Your task to perform on an android device: check data usage Image 0: 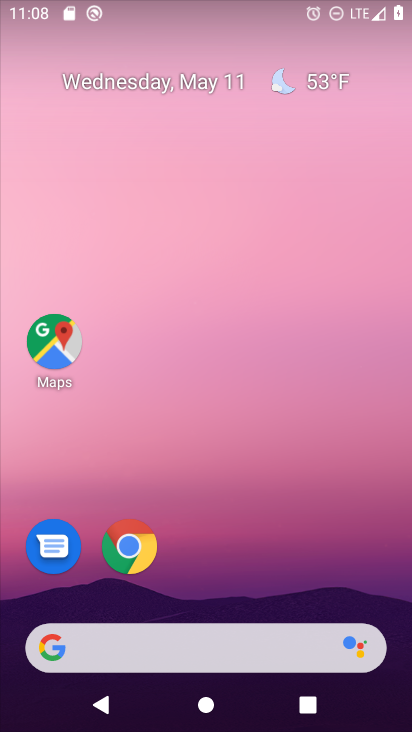
Step 0: drag from (400, 614) to (255, 51)
Your task to perform on an android device: check data usage Image 1: 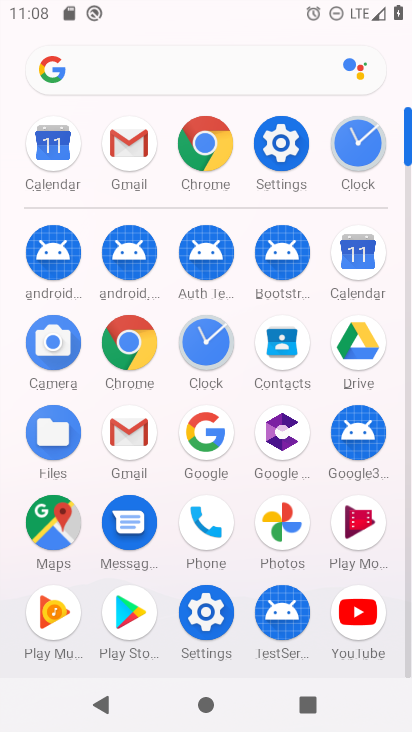
Step 1: click (286, 143)
Your task to perform on an android device: check data usage Image 2: 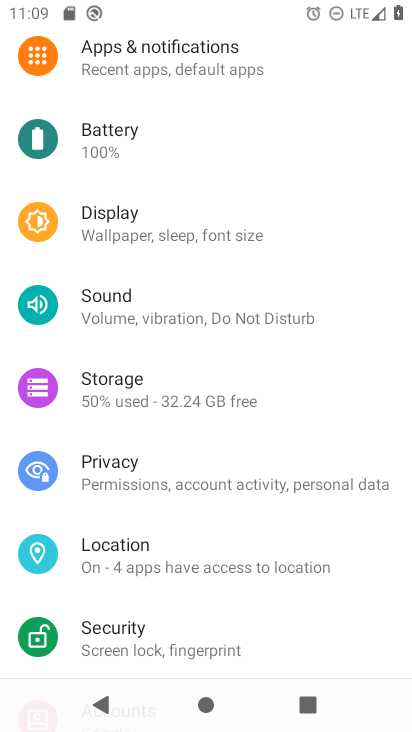
Step 2: drag from (222, 94) to (220, 638)
Your task to perform on an android device: check data usage Image 3: 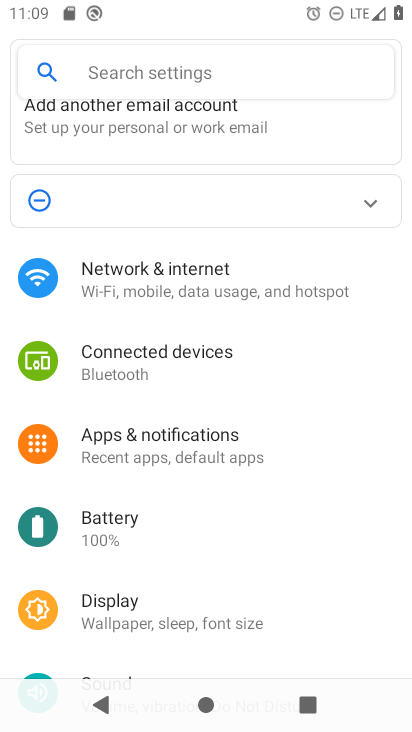
Step 3: click (155, 290)
Your task to perform on an android device: check data usage Image 4: 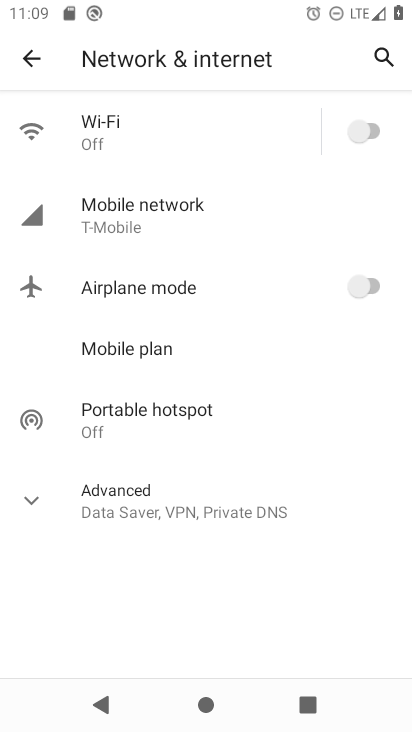
Step 4: click (161, 210)
Your task to perform on an android device: check data usage Image 5: 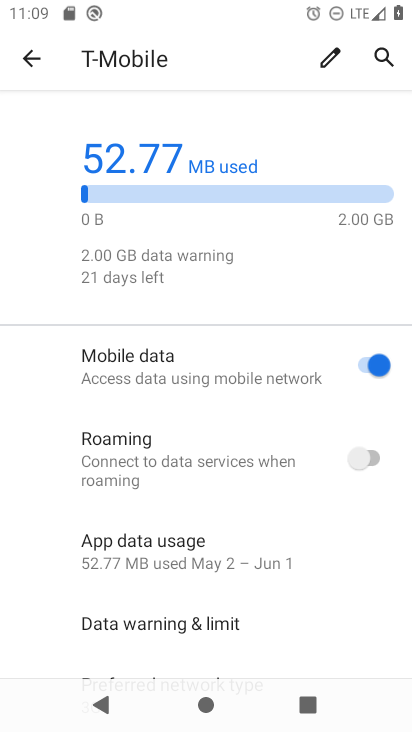
Step 5: click (191, 559)
Your task to perform on an android device: check data usage Image 6: 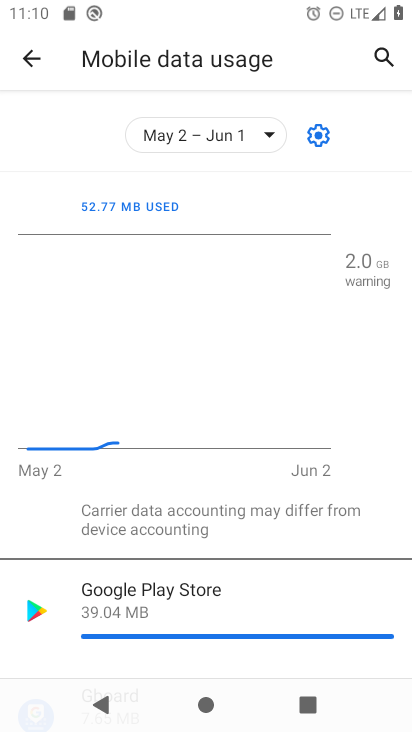
Step 6: task complete